Your task to perform on an android device: turn vacation reply on in the gmail app Image 0: 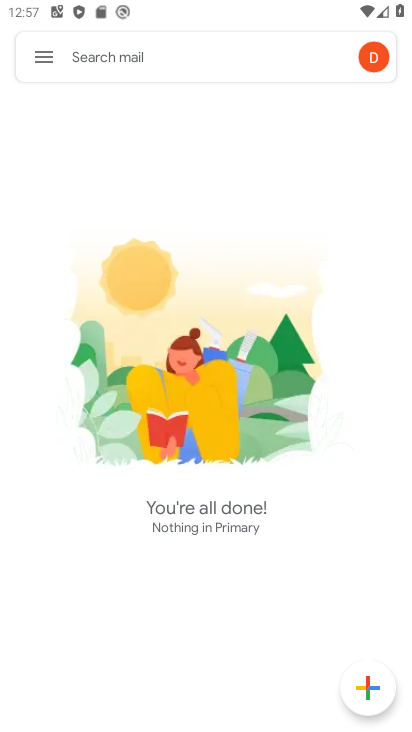
Step 0: click (30, 62)
Your task to perform on an android device: turn vacation reply on in the gmail app Image 1: 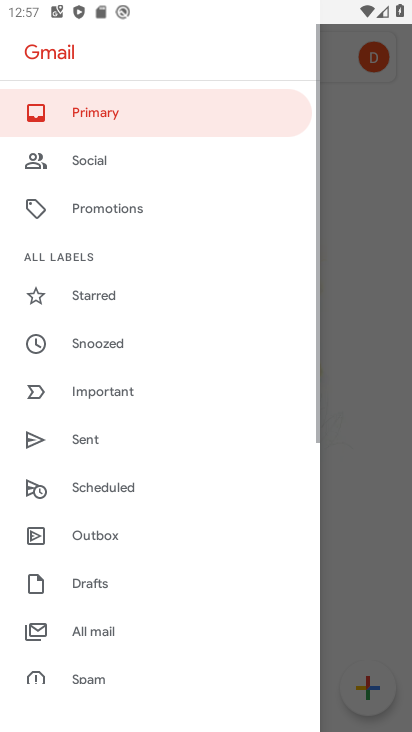
Step 1: drag from (106, 638) to (216, 157)
Your task to perform on an android device: turn vacation reply on in the gmail app Image 2: 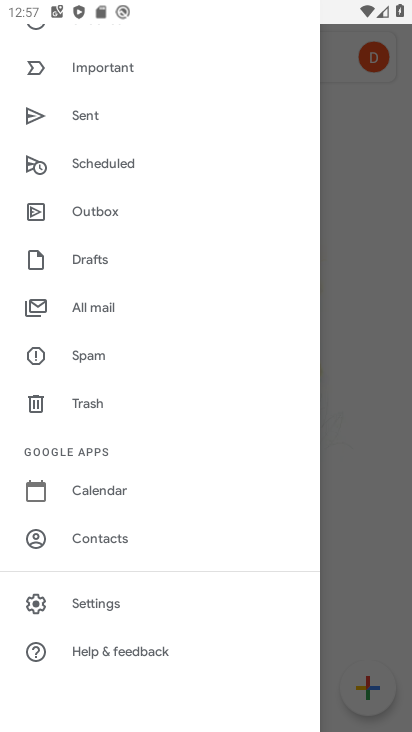
Step 2: click (99, 594)
Your task to perform on an android device: turn vacation reply on in the gmail app Image 3: 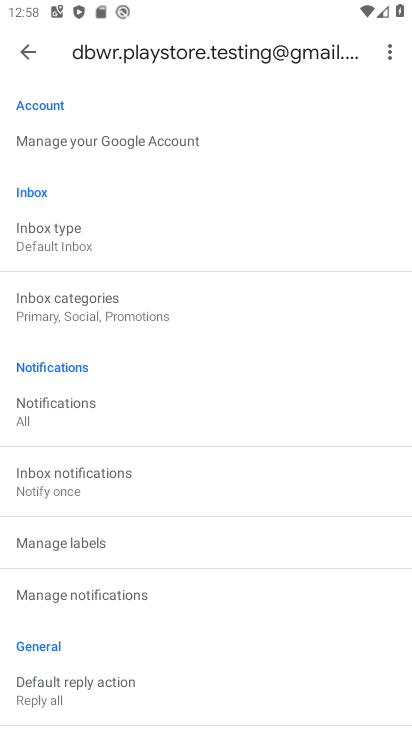
Step 3: drag from (257, 590) to (333, 117)
Your task to perform on an android device: turn vacation reply on in the gmail app Image 4: 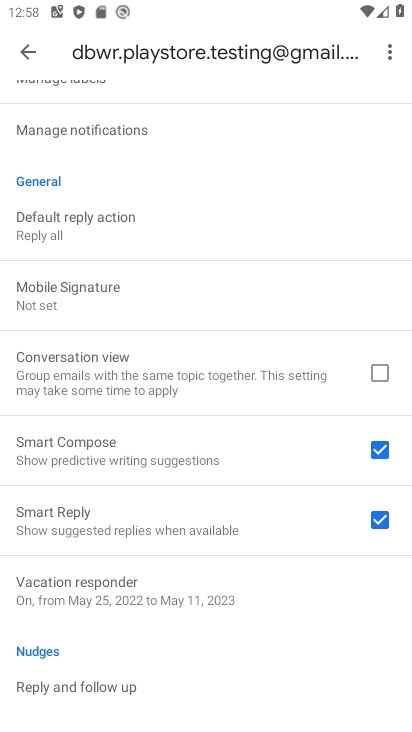
Step 4: drag from (214, 561) to (273, 256)
Your task to perform on an android device: turn vacation reply on in the gmail app Image 5: 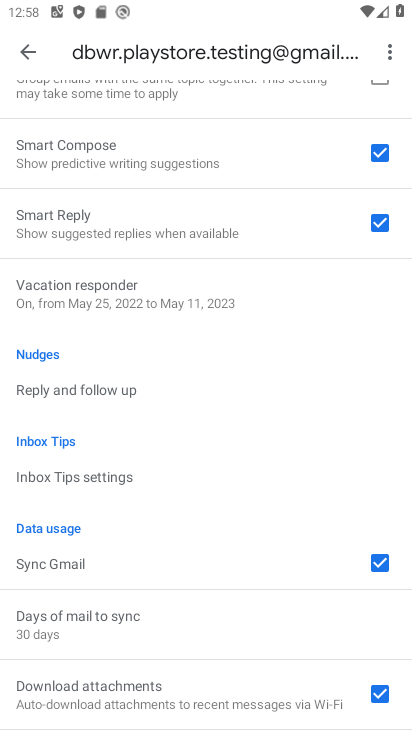
Step 5: click (102, 285)
Your task to perform on an android device: turn vacation reply on in the gmail app Image 6: 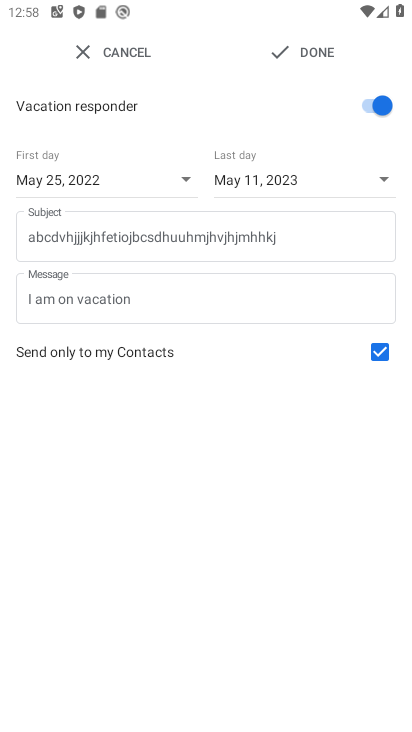
Step 6: task complete